Your task to perform on an android device: delete browsing data in the chrome app Image 0: 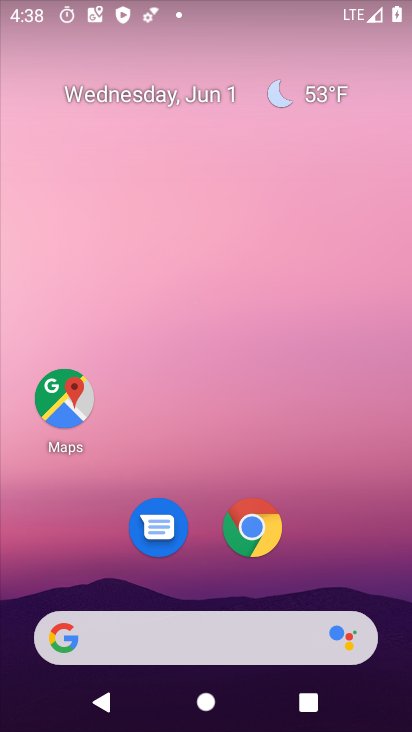
Step 0: drag from (325, 564) to (338, 28)
Your task to perform on an android device: delete browsing data in the chrome app Image 1: 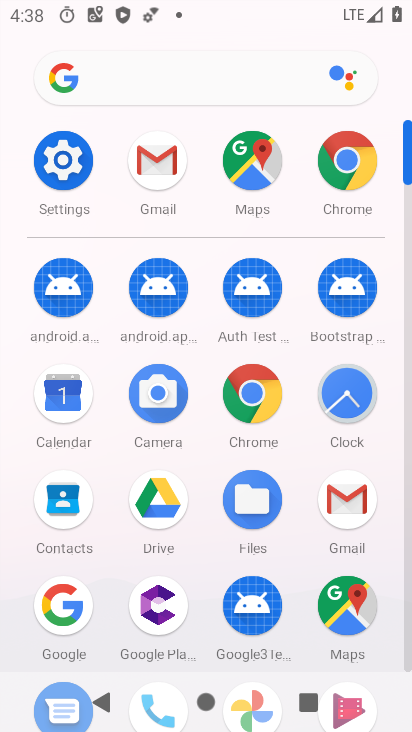
Step 1: click (255, 395)
Your task to perform on an android device: delete browsing data in the chrome app Image 2: 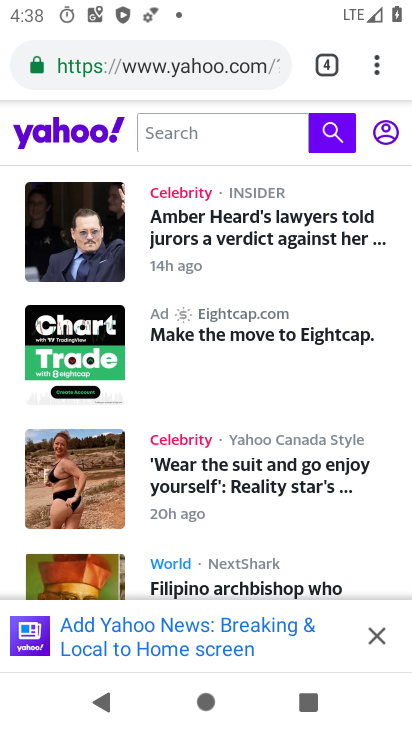
Step 2: drag from (373, 62) to (139, 575)
Your task to perform on an android device: delete browsing data in the chrome app Image 3: 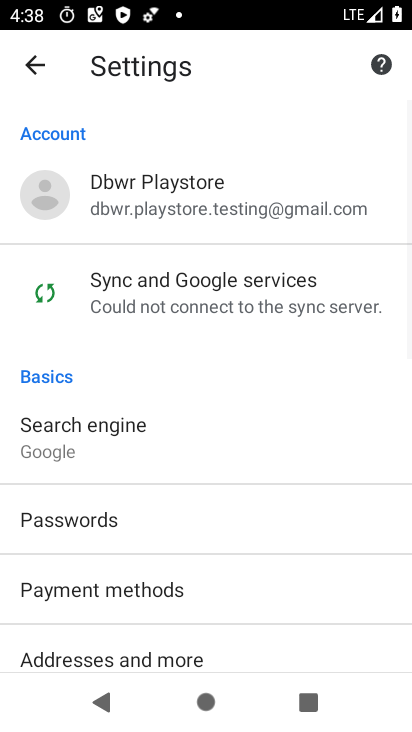
Step 3: drag from (232, 576) to (295, 176)
Your task to perform on an android device: delete browsing data in the chrome app Image 4: 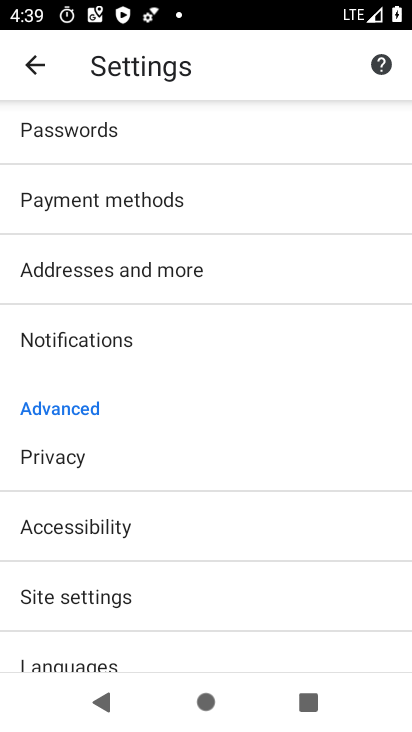
Step 4: drag from (214, 587) to (220, 365)
Your task to perform on an android device: delete browsing data in the chrome app Image 5: 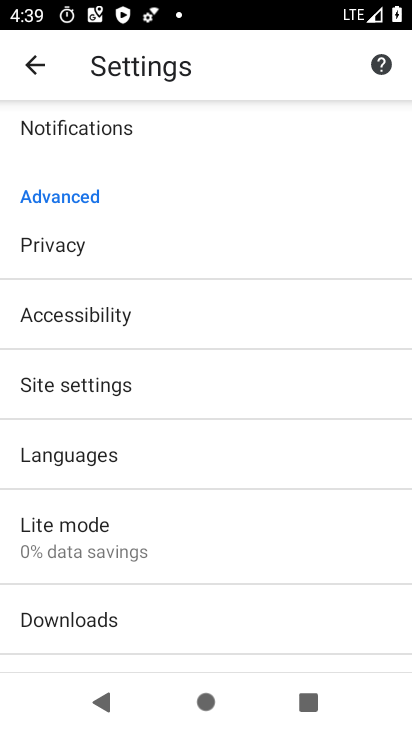
Step 5: drag from (196, 182) to (175, 491)
Your task to perform on an android device: delete browsing data in the chrome app Image 6: 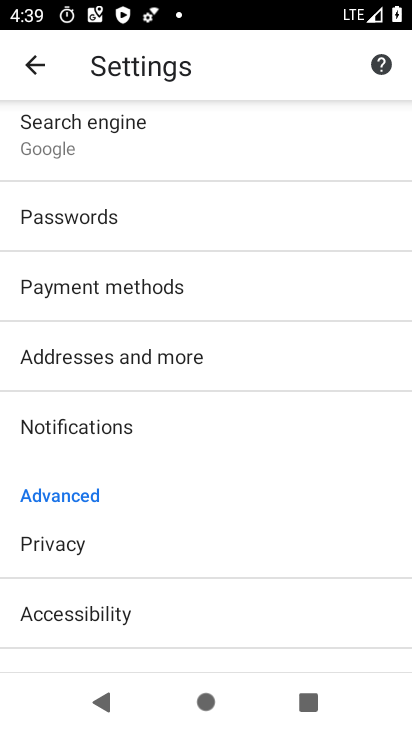
Step 6: click (73, 547)
Your task to perform on an android device: delete browsing data in the chrome app Image 7: 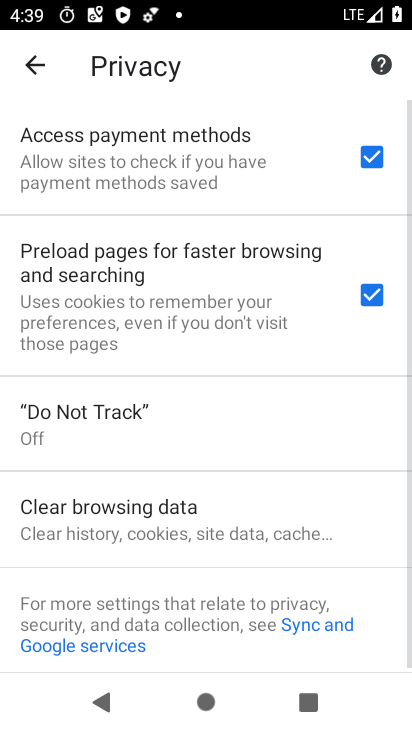
Step 7: drag from (346, 558) to (322, 150)
Your task to perform on an android device: delete browsing data in the chrome app Image 8: 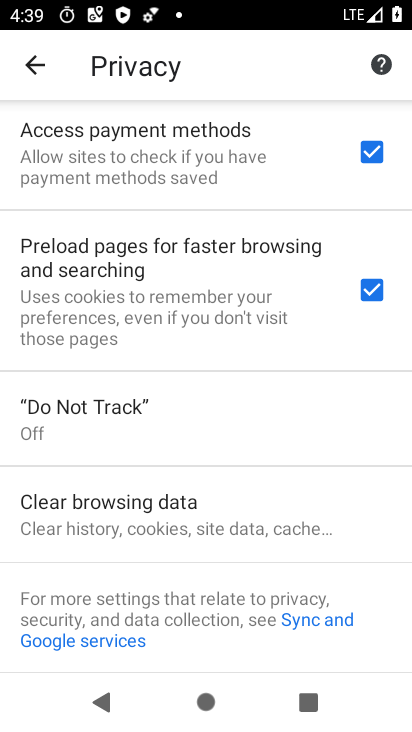
Step 8: click (194, 513)
Your task to perform on an android device: delete browsing data in the chrome app Image 9: 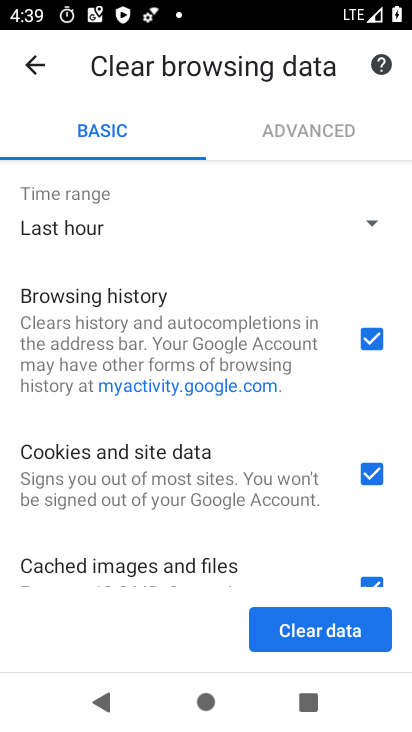
Step 9: drag from (297, 506) to (291, 280)
Your task to perform on an android device: delete browsing data in the chrome app Image 10: 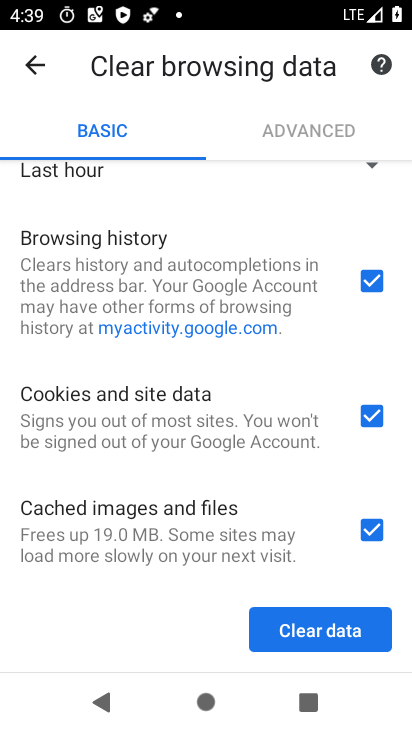
Step 10: click (308, 633)
Your task to perform on an android device: delete browsing data in the chrome app Image 11: 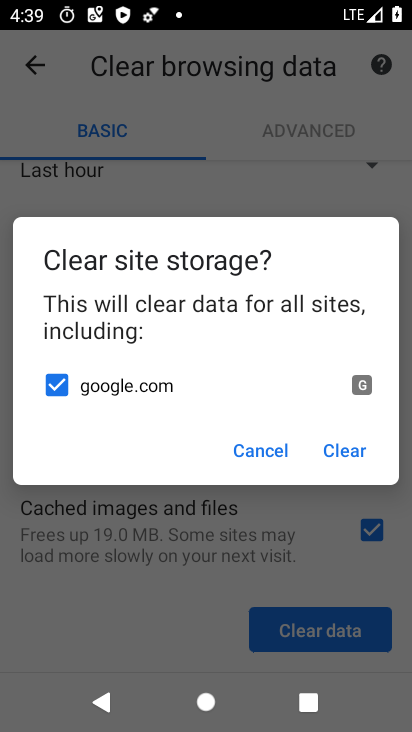
Step 11: click (345, 445)
Your task to perform on an android device: delete browsing data in the chrome app Image 12: 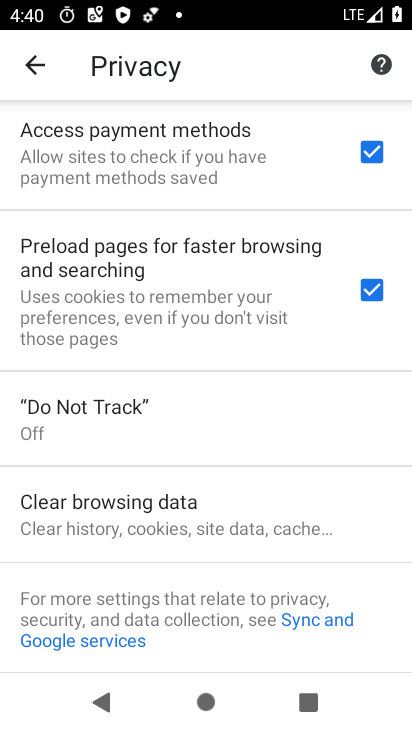
Step 12: task complete